Your task to perform on an android device: check android version Image 0: 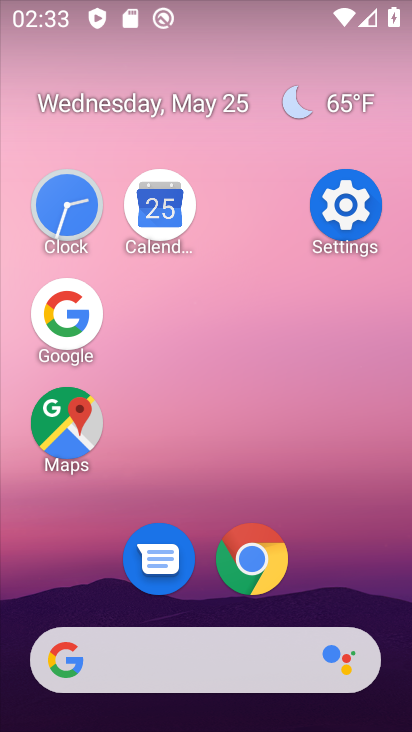
Step 0: click (365, 235)
Your task to perform on an android device: check android version Image 1: 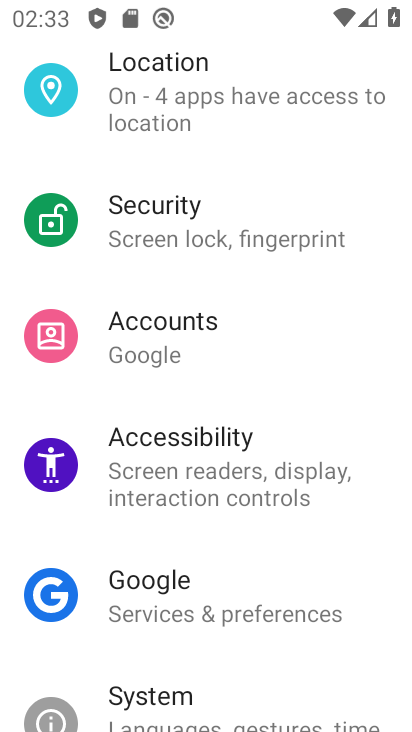
Step 1: drag from (317, 570) to (366, 94)
Your task to perform on an android device: check android version Image 2: 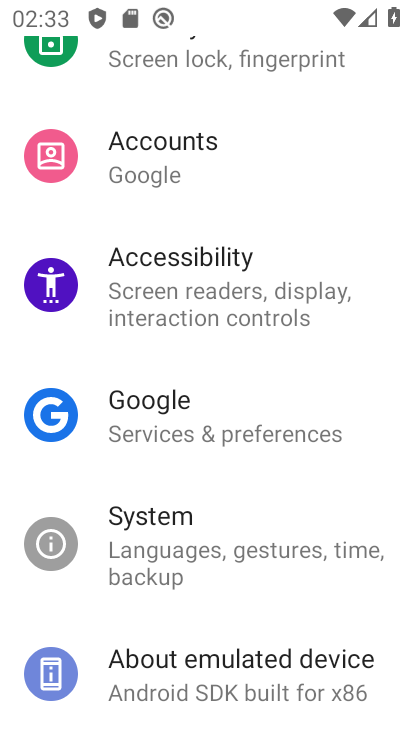
Step 2: click (228, 663)
Your task to perform on an android device: check android version Image 3: 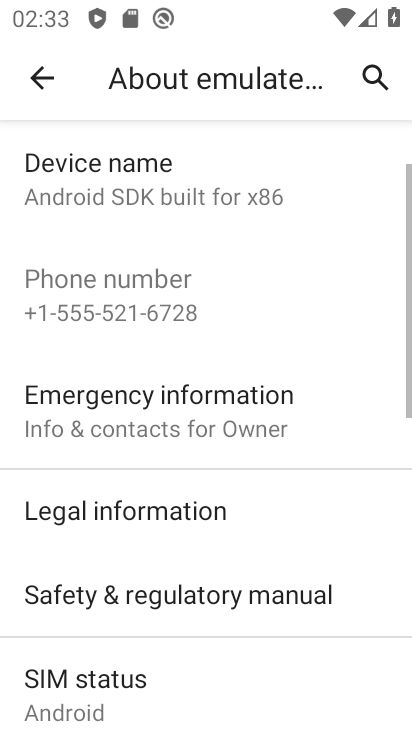
Step 3: drag from (258, 637) to (311, 190)
Your task to perform on an android device: check android version Image 4: 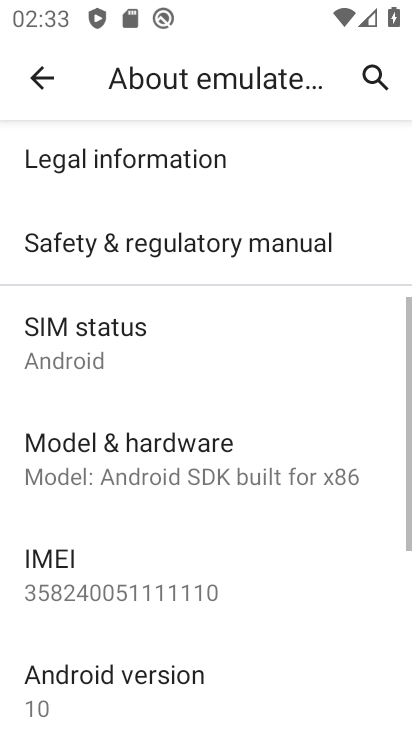
Step 4: click (180, 672)
Your task to perform on an android device: check android version Image 5: 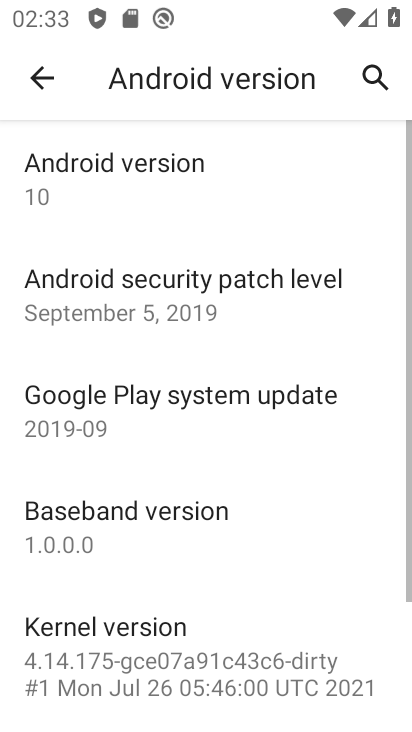
Step 5: task complete